Your task to perform on an android device: open a new tab in the chrome app Image 0: 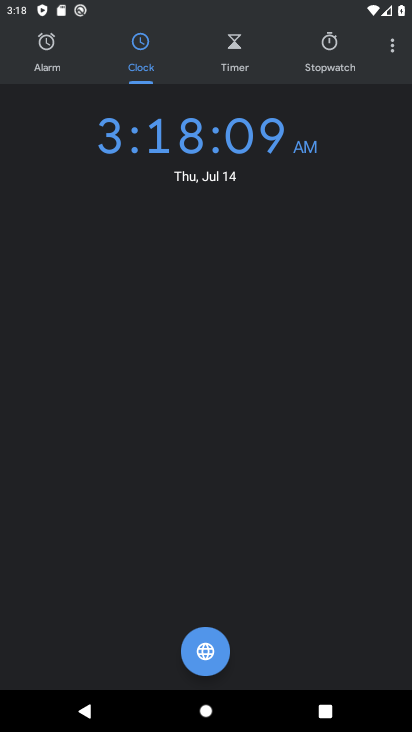
Step 0: press home button
Your task to perform on an android device: open a new tab in the chrome app Image 1: 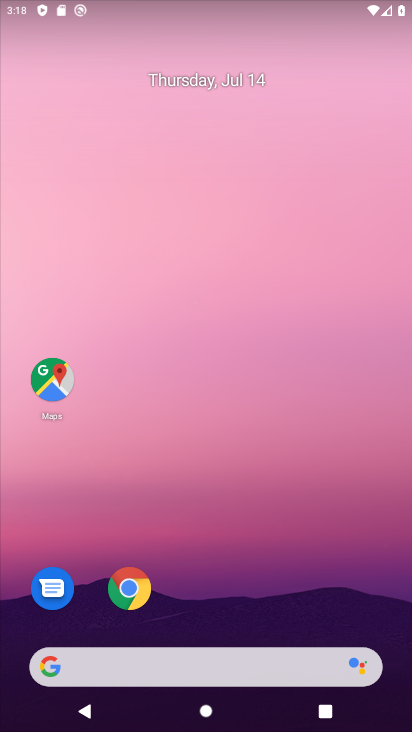
Step 1: drag from (272, 531) to (345, 27)
Your task to perform on an android device: open a new tab in the chrome app Image 2: 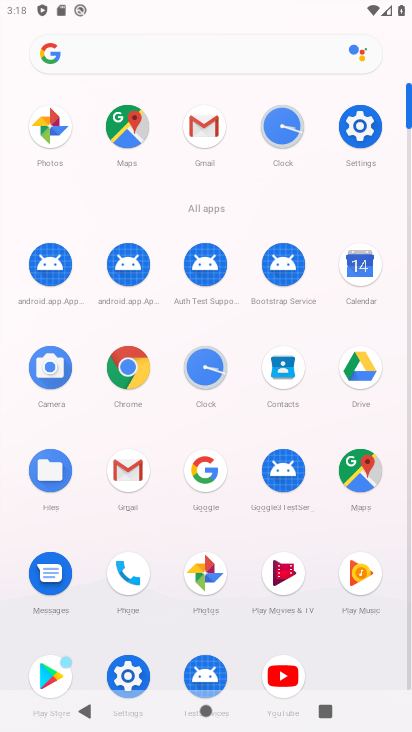
Step 2: click (130, 359)
Your task to perform on an android device: open a new tab in the chrome app Image 3: 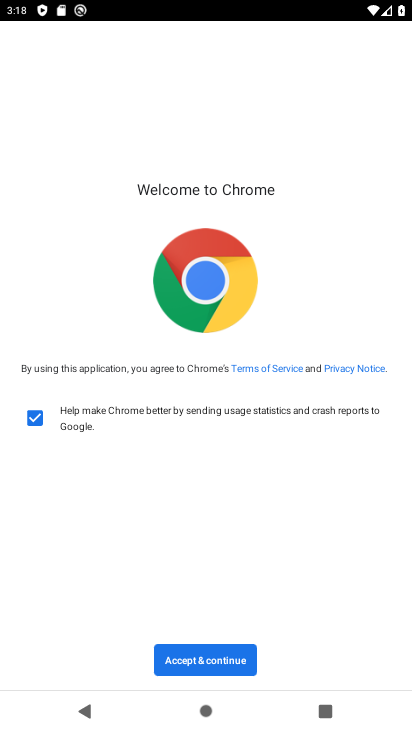
Step 3: click (210, 655)
Your task to perform on an android device: open a new tab in the chrome app Image 4: 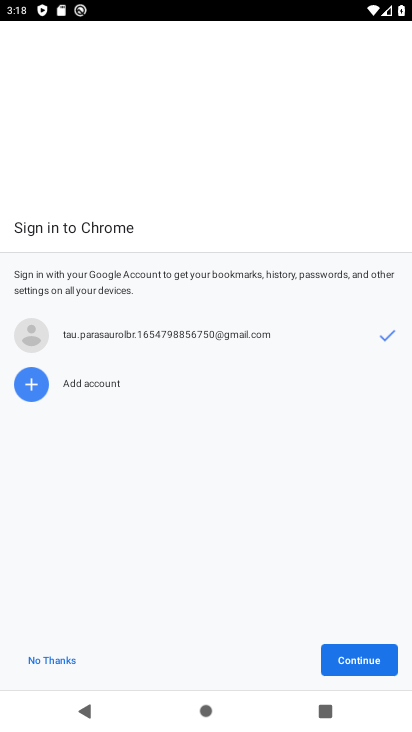
Step 4: click (67, 664)
Your task to perform on an android device: open a new tab in the chrome app Image 5: 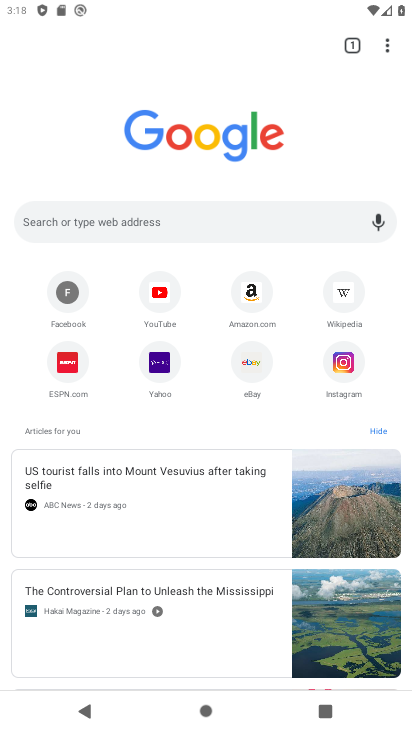
Step 5: click (383, 42)
Your task to perform on an android device: open a new tab in the chrome app Image 6: 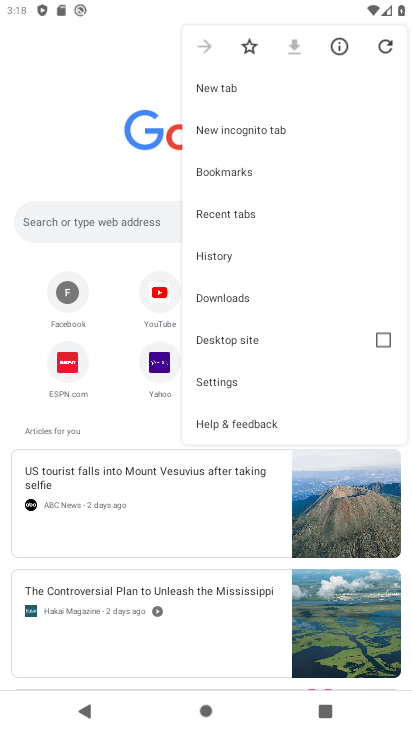
Step 6: click (195, 90)
Your task to perform on an android device: open a new tab in the chrome app Image 7: 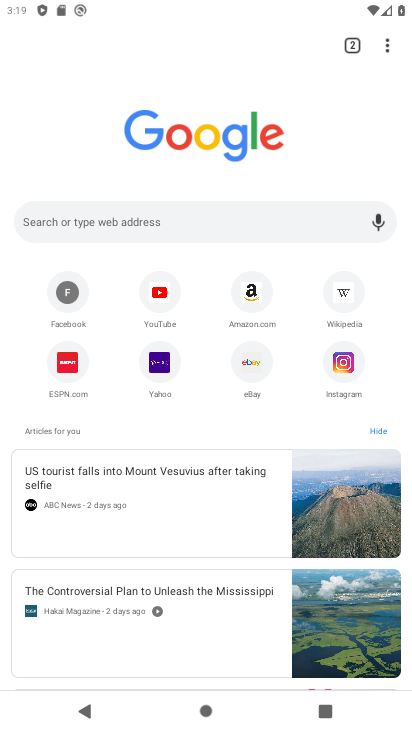
Step 7: task complete